Your task to perform on an android device: Show me popular videos on Youtube Image 0: 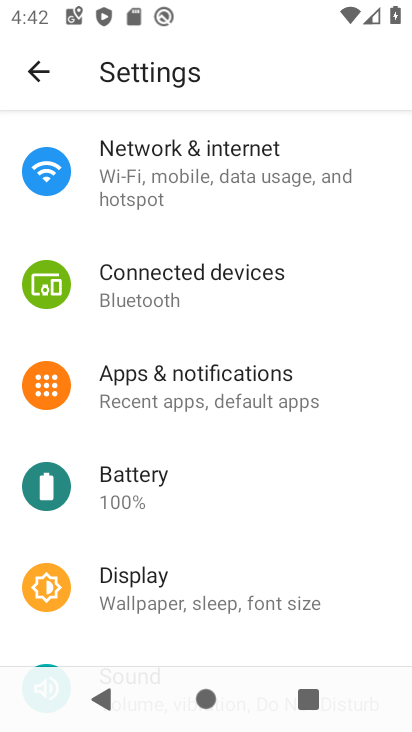
Step 0: press home button
Your task to perform on an android device: Show me popular videos on Youtube Image 1: 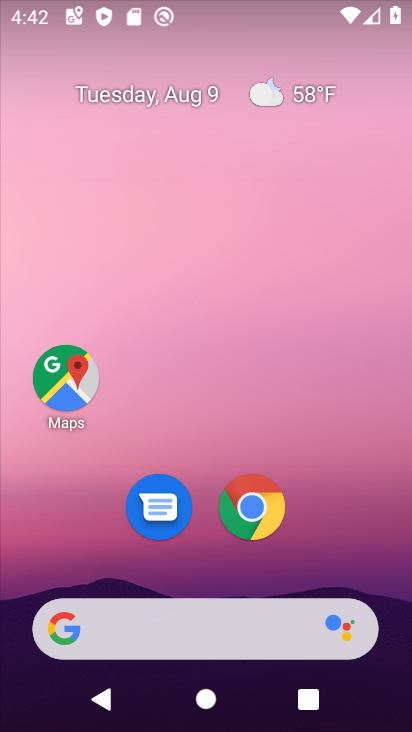
Step 1: drag from (199, 575) to (197, 193)
Your task to perform on an android device: Show me popular videos on Youtube Image 2: 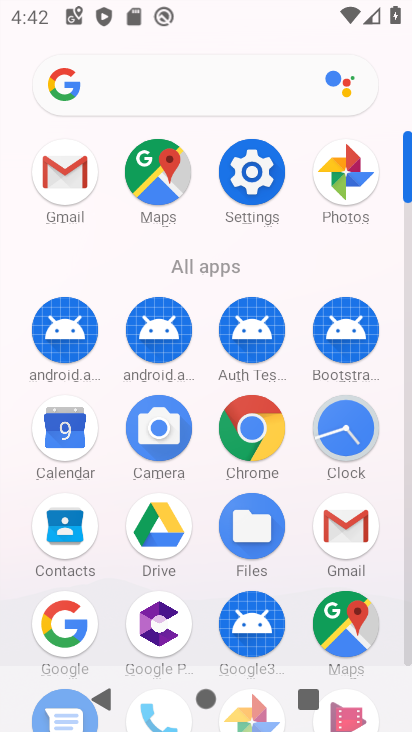
Step 2: drag from (287, 574) to (281, 232)
Your task to perform on an android device: Show me popular videos on Youtube Image 3: 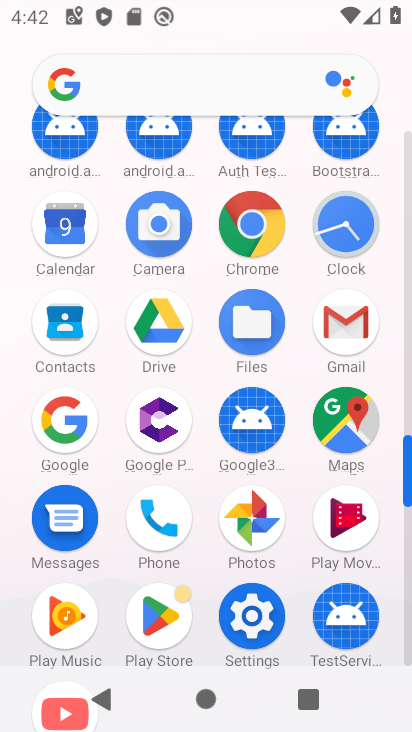
Step 3: drag from (100, 577) to (79, 346)
Your task to perform on an android device: Show me popular videos on Youtube Image 4: 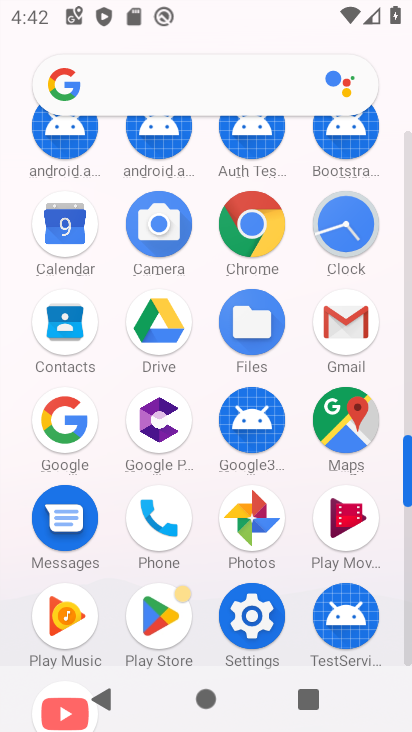
Step 4: drag from (108, 651) to (104, 377)
Your task to perform on an android device: Show me popular videos on Youtube Image 5: 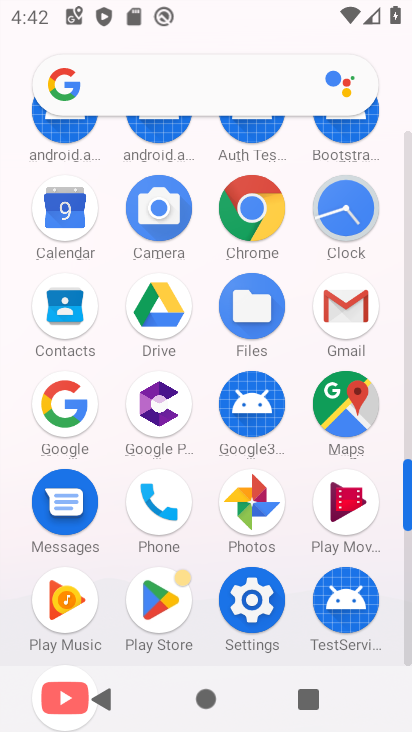
Step 5: drag from (107, 625) to (107, 448)
Your task to perform on an android device: Show me popular videos on Youtube Image 6: 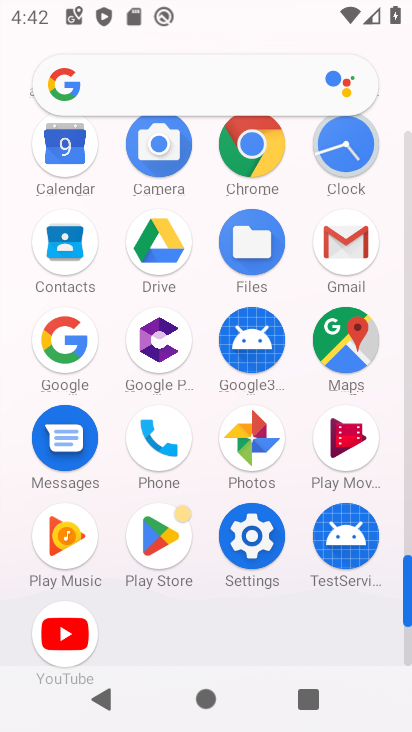
Step 6: click (60, 649)
Your task to perform on an android device: Show me popular videos on Youtube Image 7: 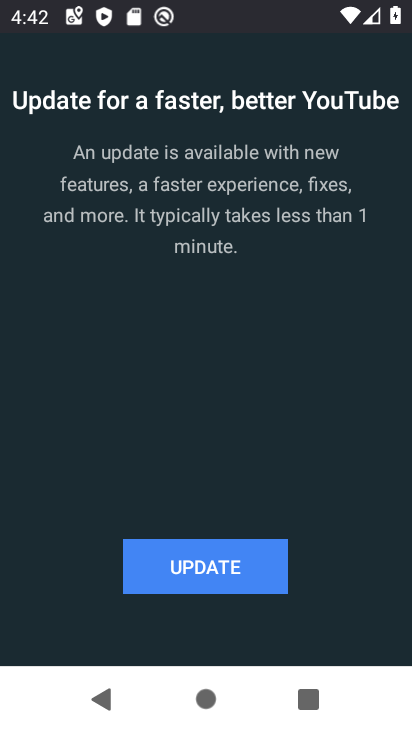
Step 7: click (175, 558)
Your task to perform on an android device: Show me popular videos on Youtube Image 8: 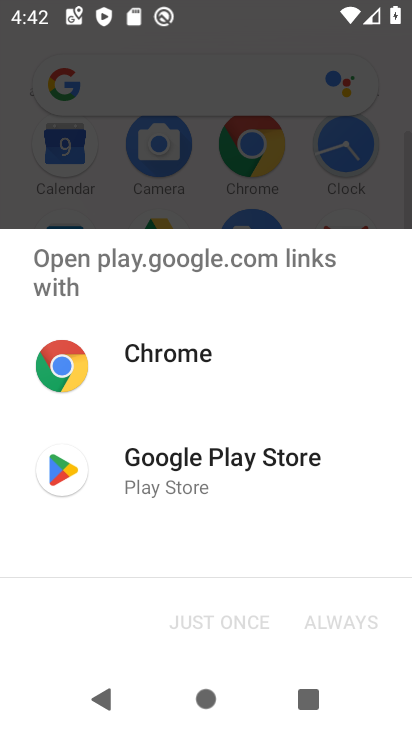
Step 8: click (211, 467)
Your task to perform on an android device: Show me popular videos on Youtube Image 9: 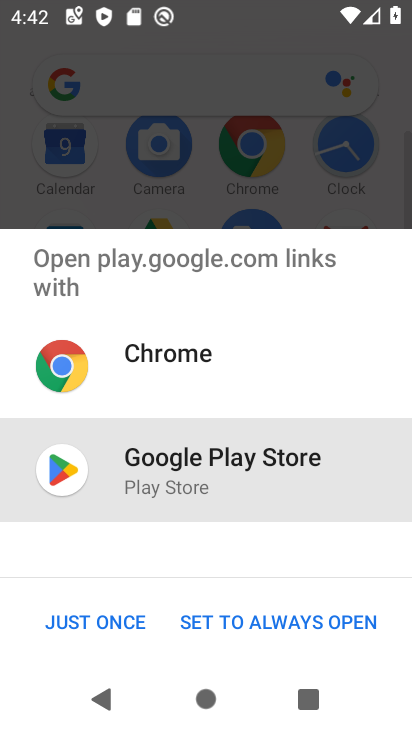
Step 9: click (124, 619)
Your task to perform on an android device: Show me popular videos on Youtube Image 10: 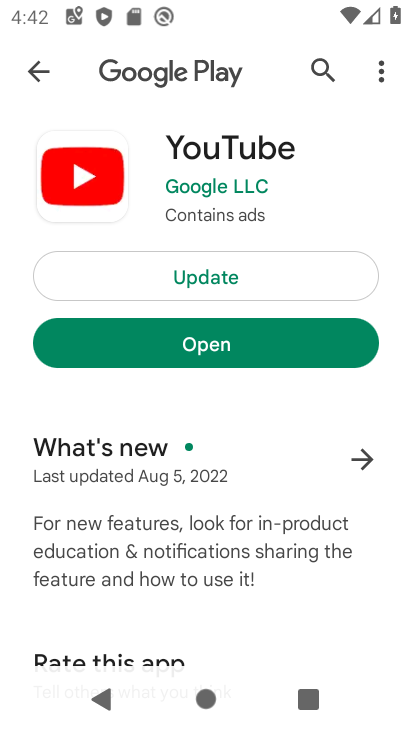
Step 10: click (246, 287)
Your task to perform on an android device: Show me popular videos on Youtube Image 11: 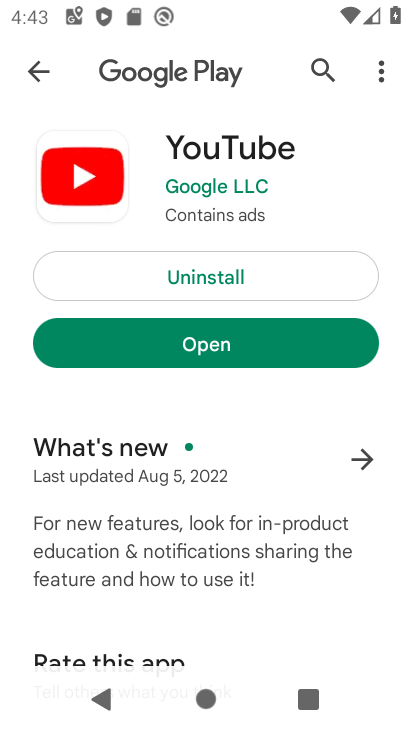
Step 11: click (246, 331)
Your task to perform on an android device: Show me popular videos on Youtube Image 12: 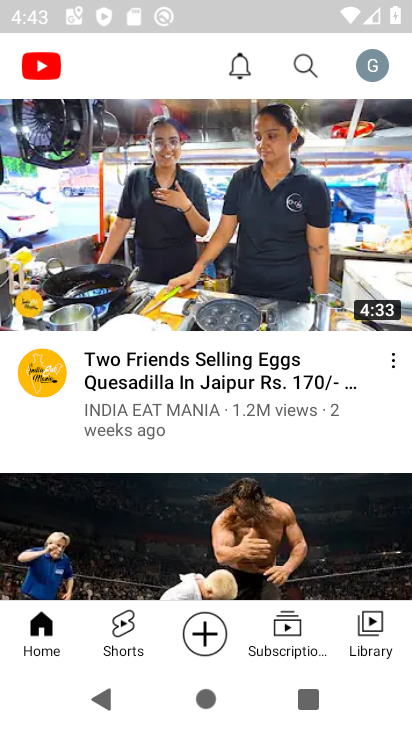
Step 12: drag from (115, 160) to (152, 435)
Your task to perform on an android device: Show me popular videos on Youtube Image 13: 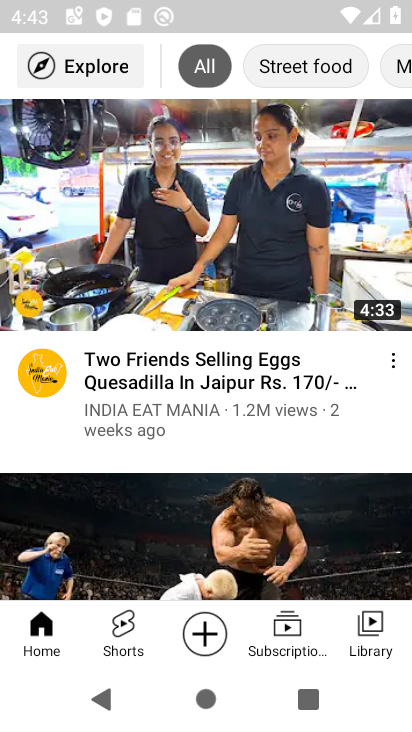
Step 13: click (85, 56)
Your task to perform on an android device: Show me popular videos on Youtube Image 14: 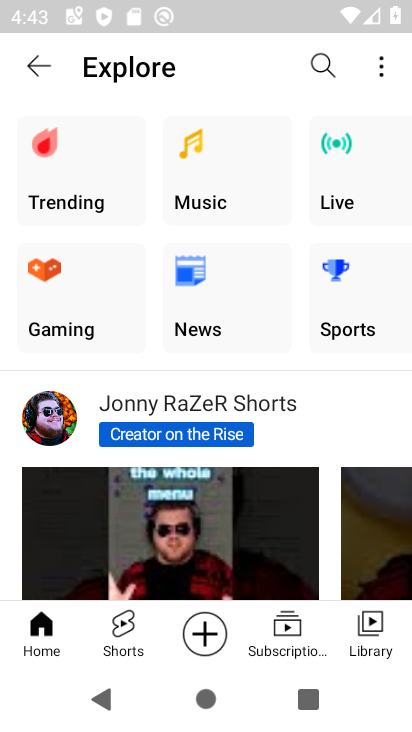
Step 14: click (85, 166)
Your task to perform on an android device: Show me popular videos on Youtube Image 15: 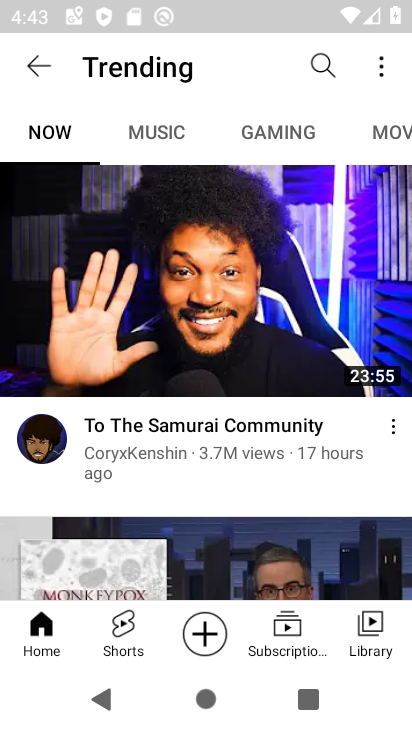
Step 15: task complete